Your task to perform on an android device: Open calendar and show me the third week of next month Image 0: 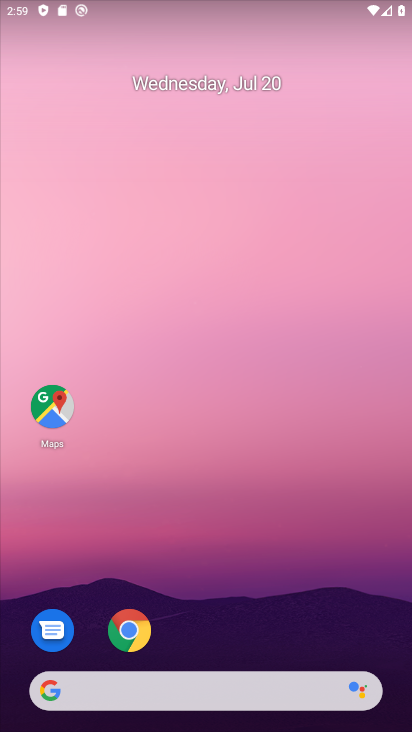
Step 0: drag from (199, 714) to (136, 268)
Your task to perform on an android device: Open calendar and show me the third week of next month Image 1: 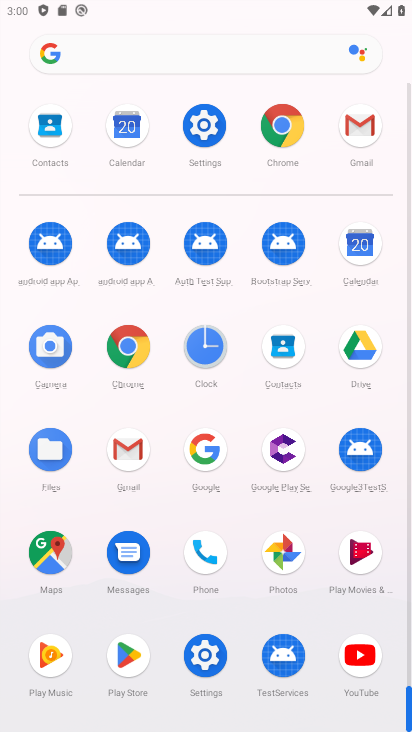
Step 1: click (354, 239)
Your task to perform on an android device: Open calendar and show me the third week of next month Image 2: 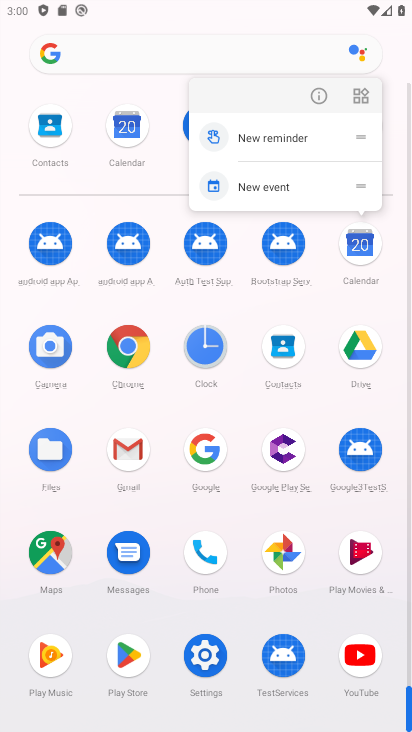
Step 2: click (354, 241)
Your task to perform on an android device: Open calendar and show me the third week of next month Image 3: 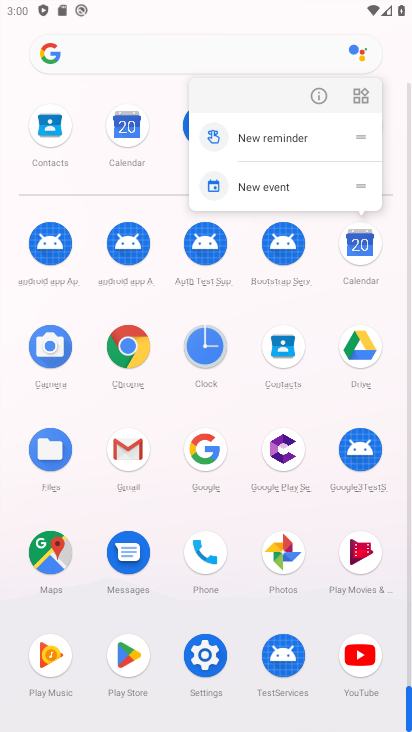
Step 3: click (354, 241)
Your task to perform on an android device: Open calendar and show me the third week of next month Image 4: 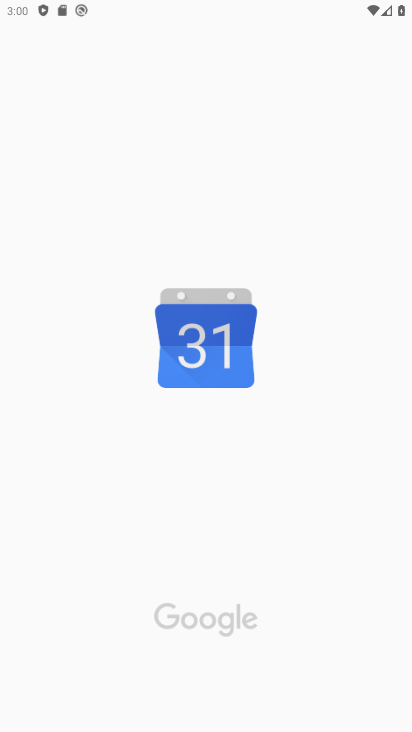
Step 4: click (363, 249)
Your task to perform on an android device: Open calendar and show me the third week of next month Image 5: 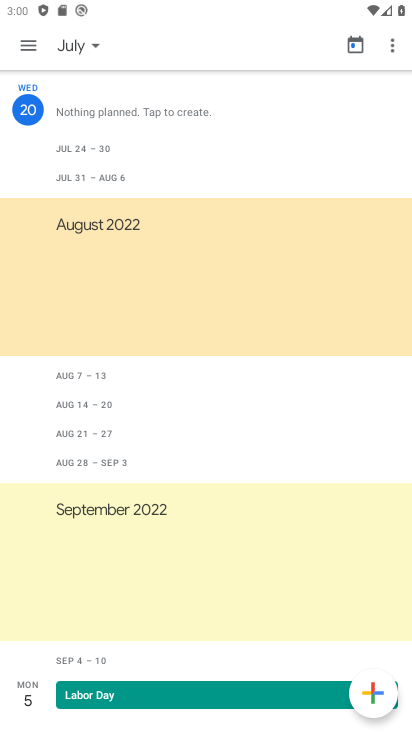
Step 5: click (92, 44)
Your task to perform on an android device: Open calendar and show me the third week of next month Image 6: 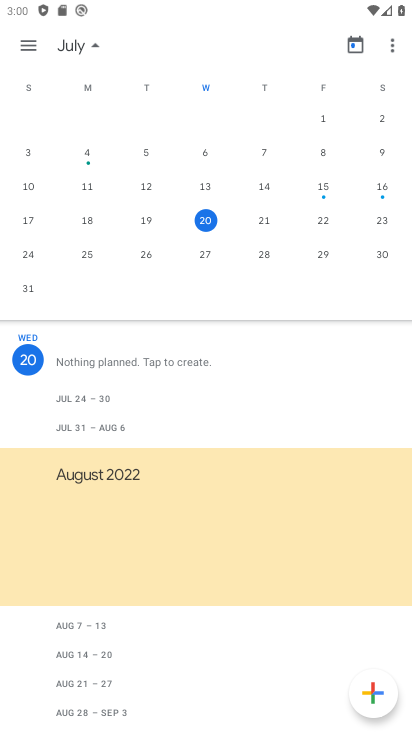
Step 6: drag from (189, 247) to (15, 243)
Your task to perform on an android device: Open calendar and show me the third week of next month Image 7: 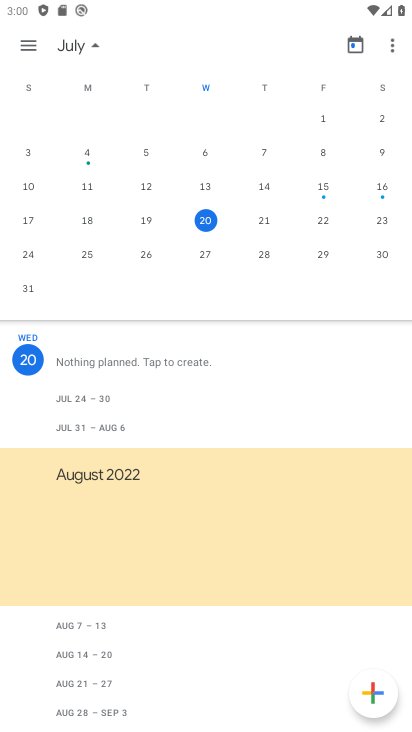
Step 7: drag from (306, 188) to (3, 173)
Your task to perform on an android device: Open calendar and show me the third week of next month Image 8: 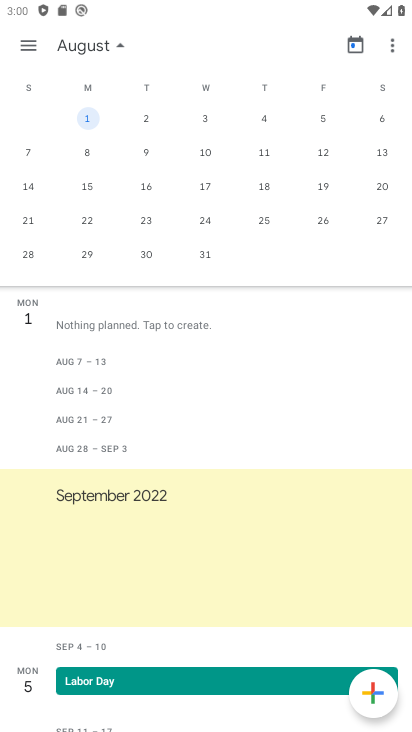
Step 8: click (203, 188)
Your task to perform on an android device: Open calendar and show me the third week of next month Image 9: 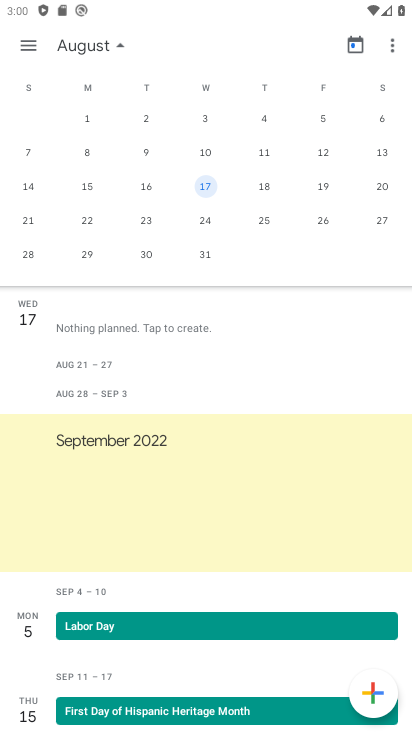
Step 9: click (203, 188)
Your task to perform on an android device: Open calendar and show me the third week of next month Image 10: 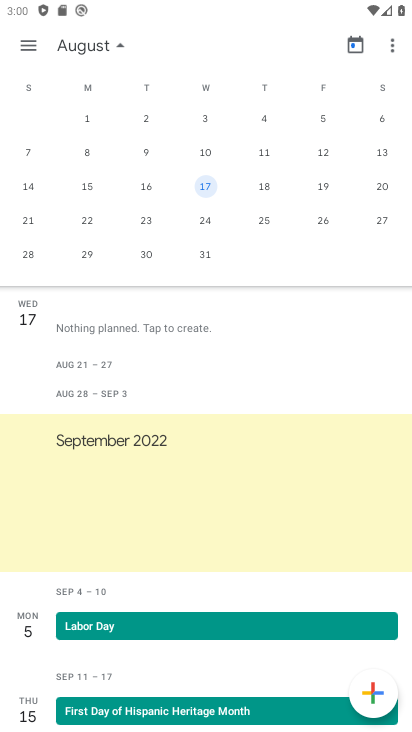
Step 10: click (203, 188)
Your task to perform on an android device: Open calendar and show me the third week of next month Image 11: 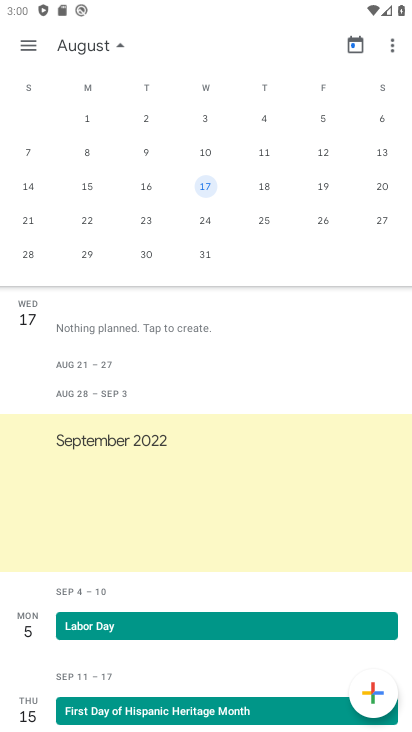
Step 11: task complete